Your task to perform on an android device: change text size in settings app Image 0: 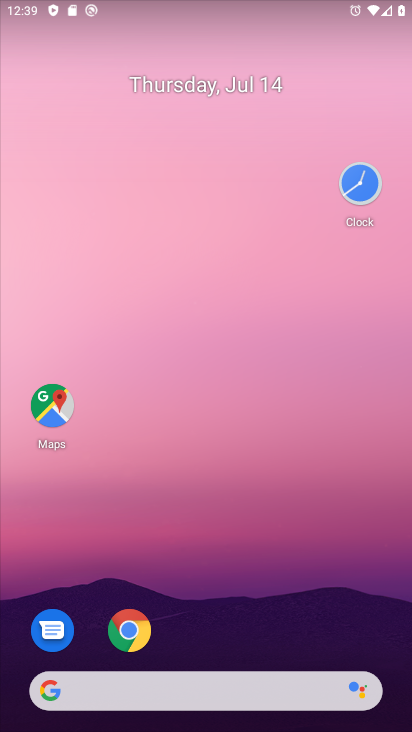
Step 0: click (360, 182)
Your task to perform on an android device: change text size in settings app Image 1: 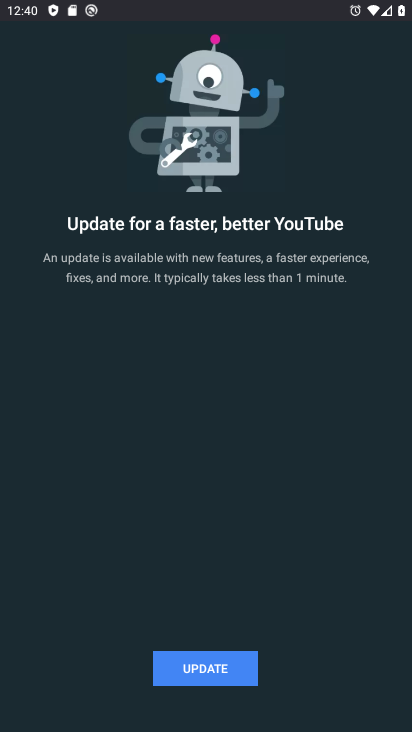
Step 1: press back button
Your task to perform on an android device: change text size in settings app Image 2: 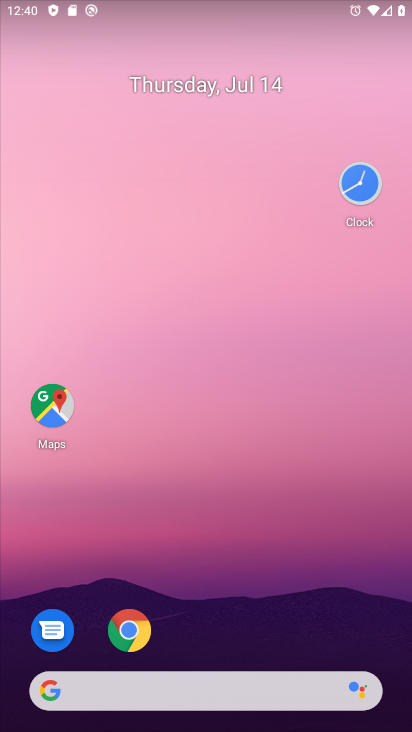
Step 2: drag from (190, 617) to (203, 138)
Your task to perform on an android device: change text size in settings app Image 3: 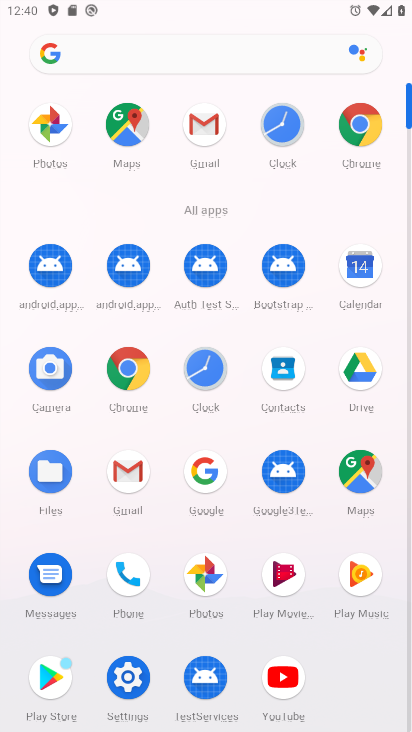
Step 3: drag from (132, 673) to (252, 211)
Your task to perform on an android device: change text size in settings app Image 4: 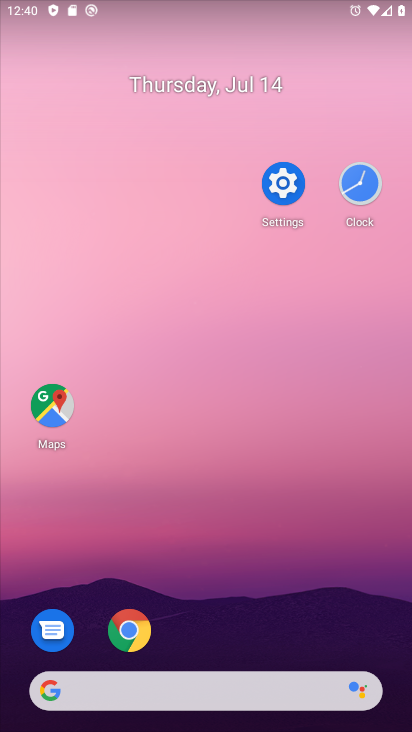
Step 4: click (285, 175)
Your task to perform on an android device: change text size in settings app Image 5: 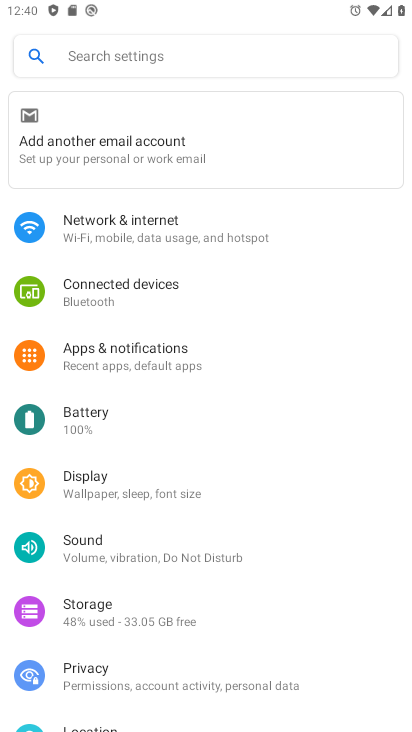
Step 5: drag from (186, 605) to (212, 272)
Your task to perform on an android device: change text size in settings app Image 6: 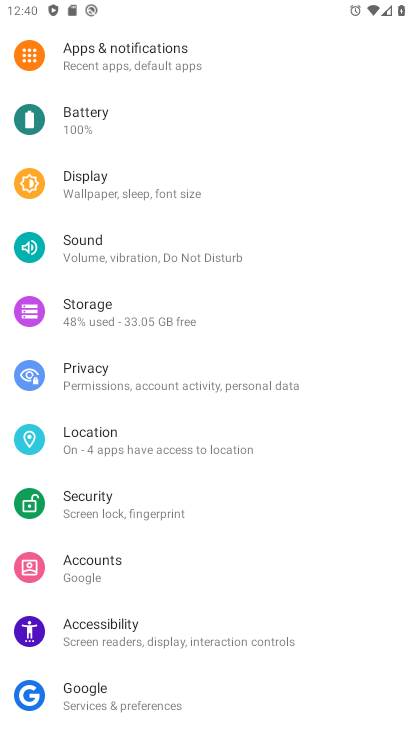
Step 6: click (235, 190)
Your task to perform on an android device: change text size in settings app Image 7: 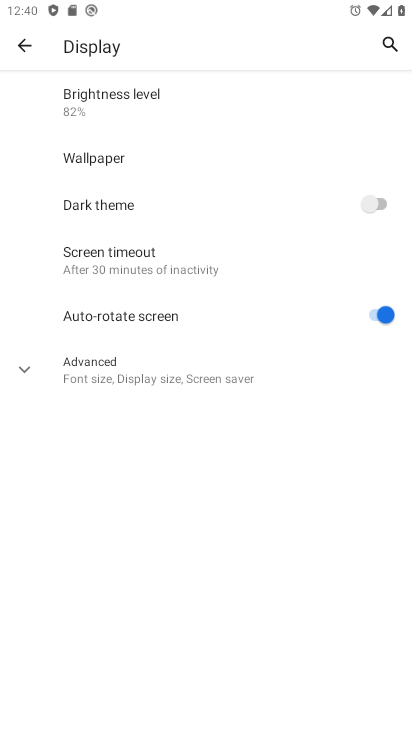
Step 7: click (138, 369)
Your task to perform on an android device: change text size in settings app Image 8: 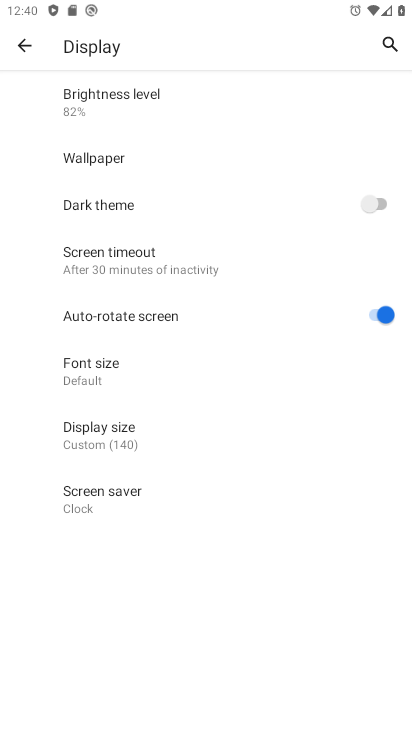
Step 8: click (140, 374)
Your task to perform on an android device: change text size in settings app Image 9: 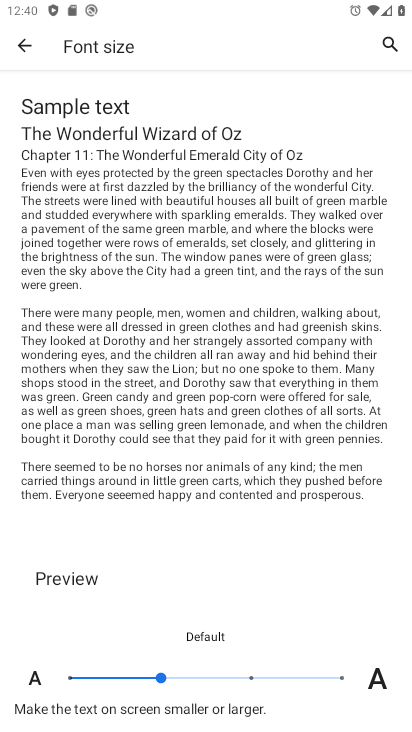
Step 9: click (343, 682)
Your task to perform on an android device: change text size in settings app Image 10: 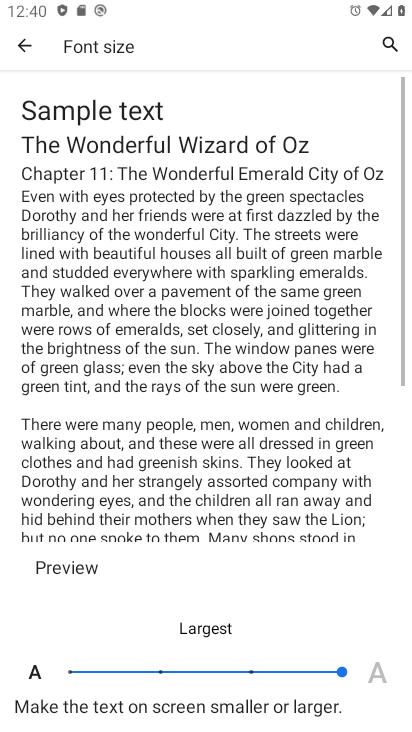
Step 10: task complete